Your task to perform on an android device: Toggle the flashlight Image 0: 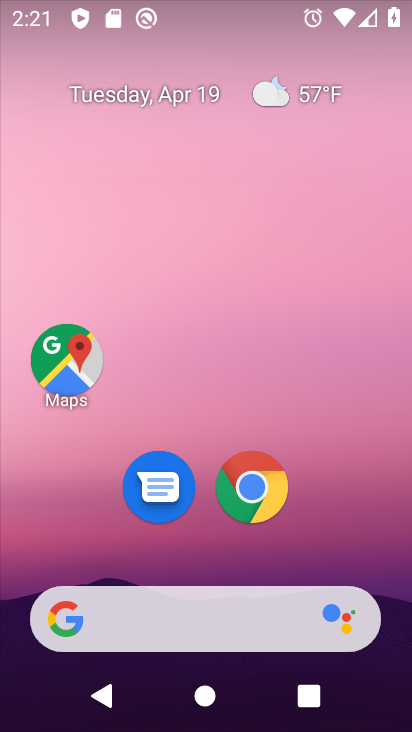
Step 0: drag from (220, 16) to (214, 611)
Your task to perform on an android device: Toggle the flashlight Image 1: 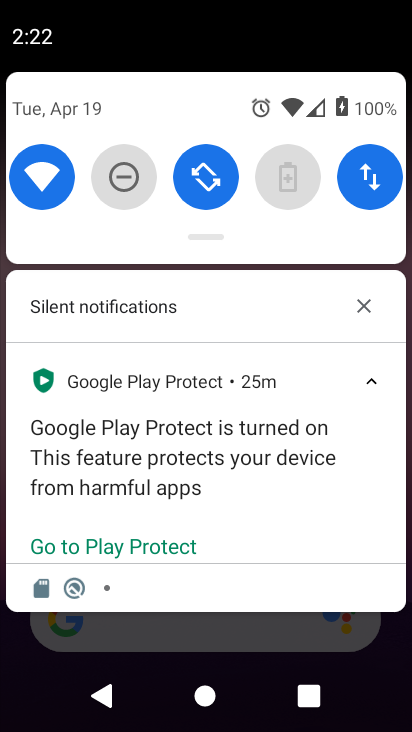
Step 1: click (253, 714)
Your task to perform on an android device: Toggle the flashlight Image 2: 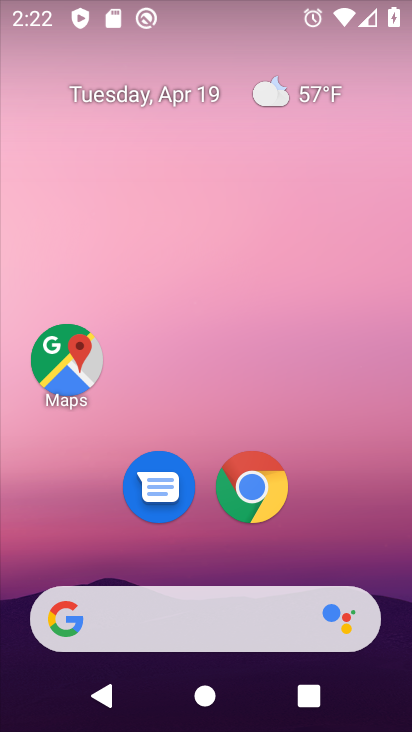
Step 2: drag from (216, 14) to (200, 724)
Your task to perform on an android device: Toggle the flashlight Image 3: 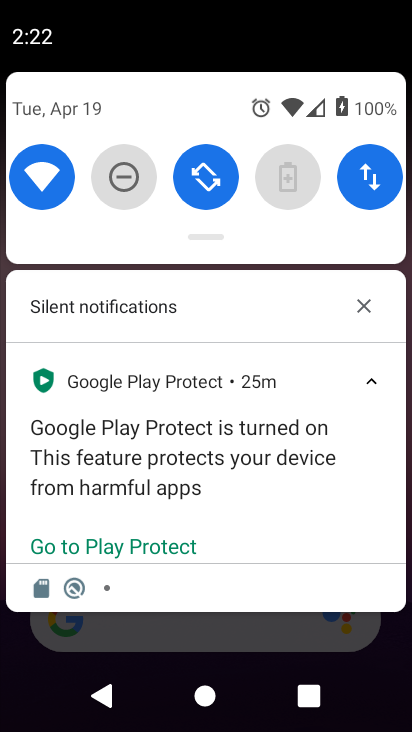
Step 3: drag from (239, 132) to (181, 727)
Your task to perform on an android device: Toggle the flashlight Image 4: 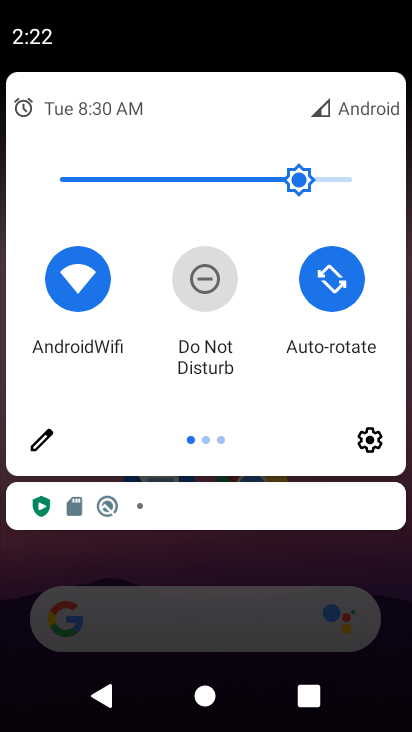
Step 4: click (370, 435)
Your task to perform on an android device: Toggle the flashlight Image 5: 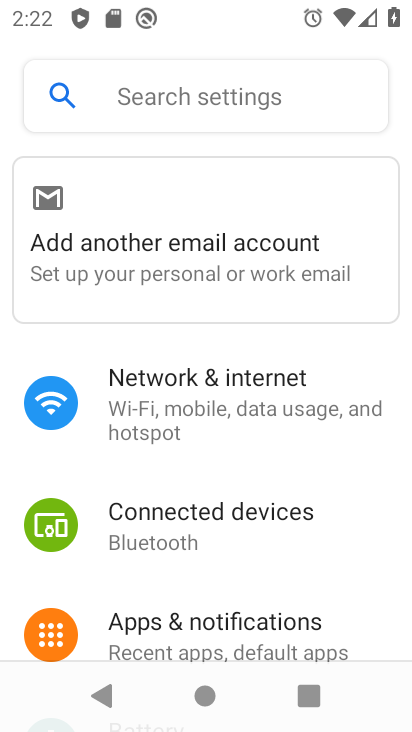
Step 5: task complete